Your task to perform on an android device: Clear the cart on ebay. Search for razer blackwidow on ebay, select the first entry, add it to the cart, then select checkout. Image 0: 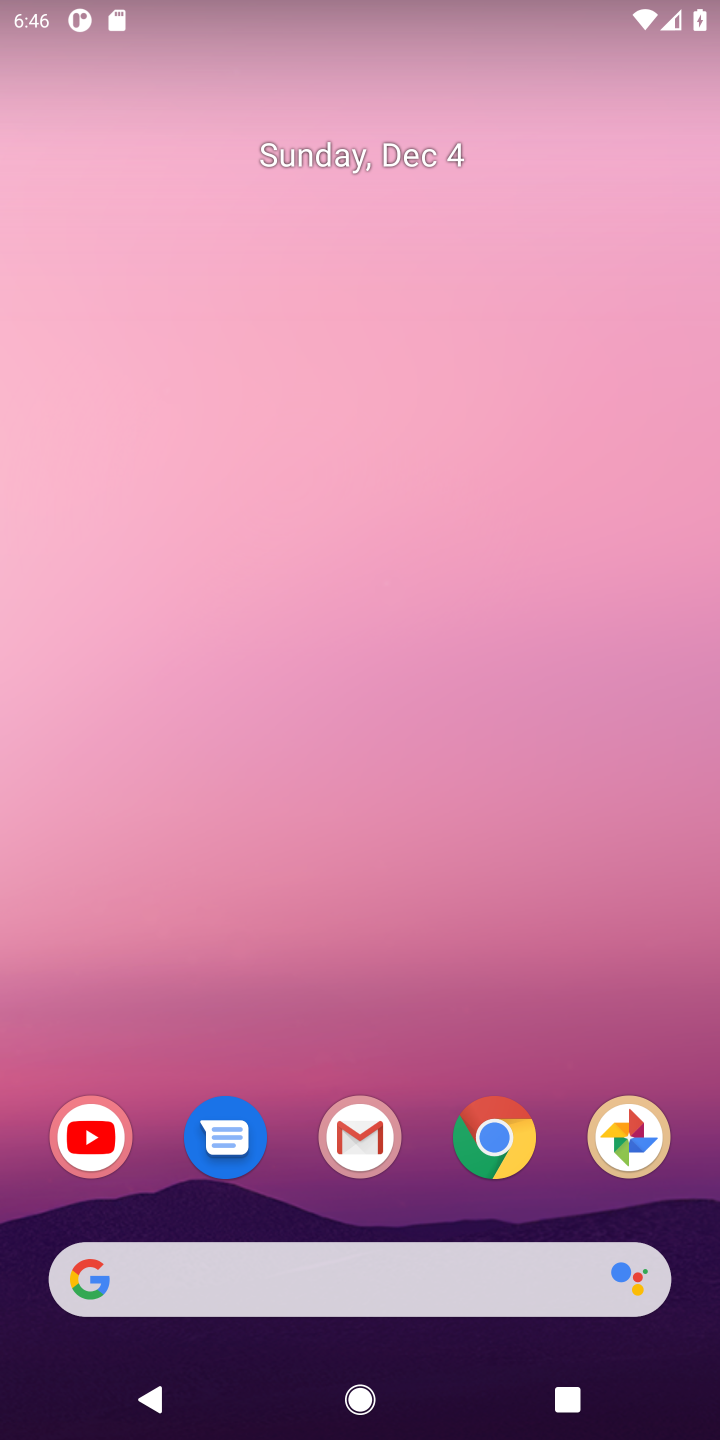
Step 0: click (489, 1140)
Your task to perform on an android device: Clear the cart on ebay. Search for razer blackwidow on ebay, select the first entry, add it to the cart, then select checkout. Image 1: 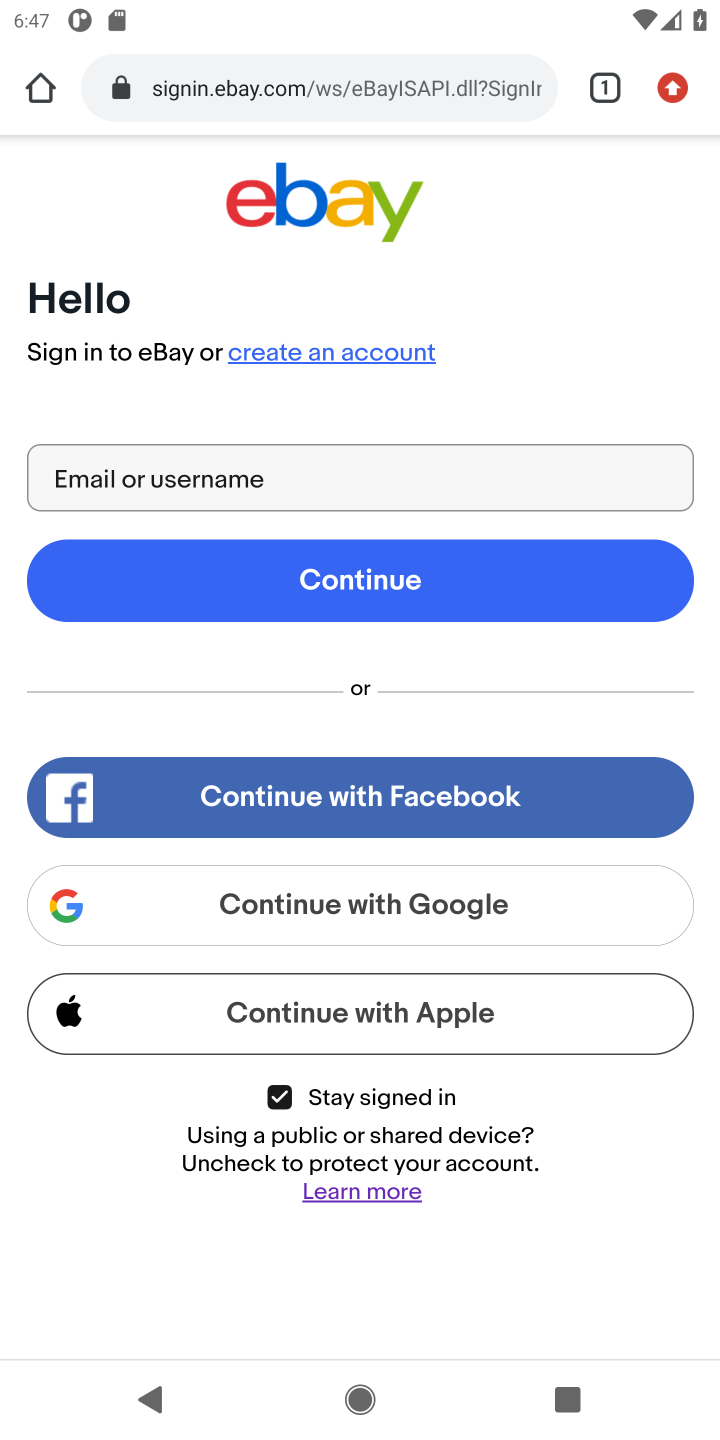
Step 1: press back button
Your task to perform on an android device: Clear the cart on ebay. Search for razer blackwidow on ebay, select the first entry, add it to the cart, then select checkout. Image 2: 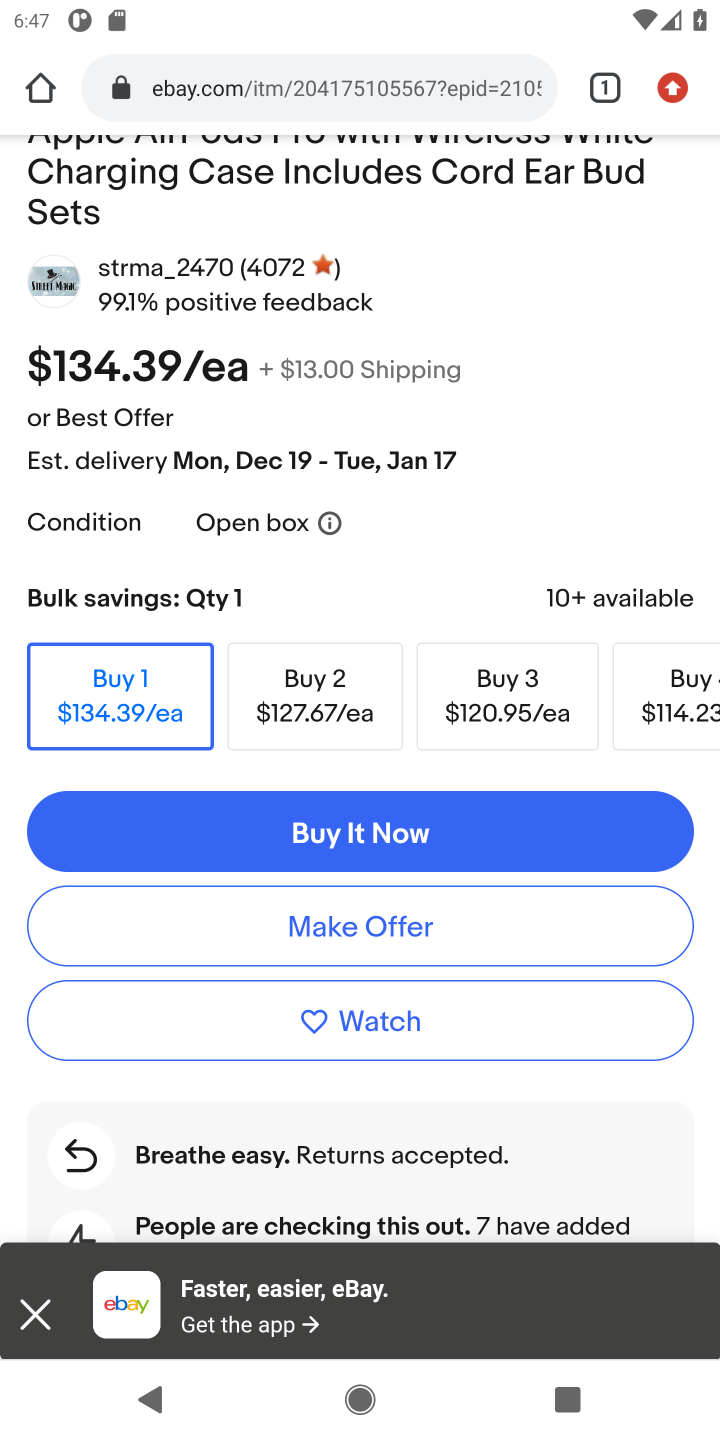
Step 2: drag from (545, 229) to (497, 1020)
Your task to perform on an android device: Clear the cart on ebay. Search for razer blackwidow on ebay, select the first entry, add it to the cart, then select checkout. Image 3: 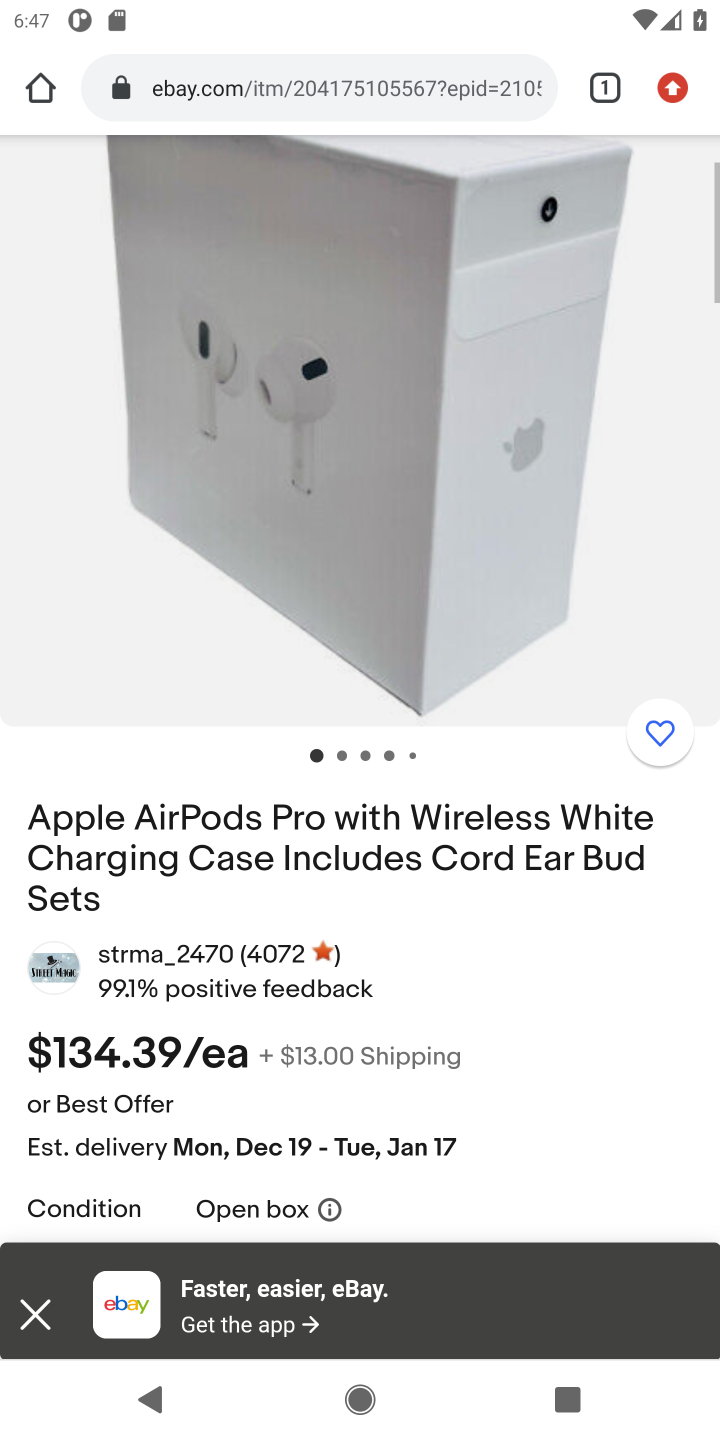
Step 3: drag from (480, 501) to (502, 1147)
Your task to perform on an android device: Clear the cart on ebay. Search for razer blackwidow on ebay, select the first entry, add it to the cart, then select checkout. Image 4: 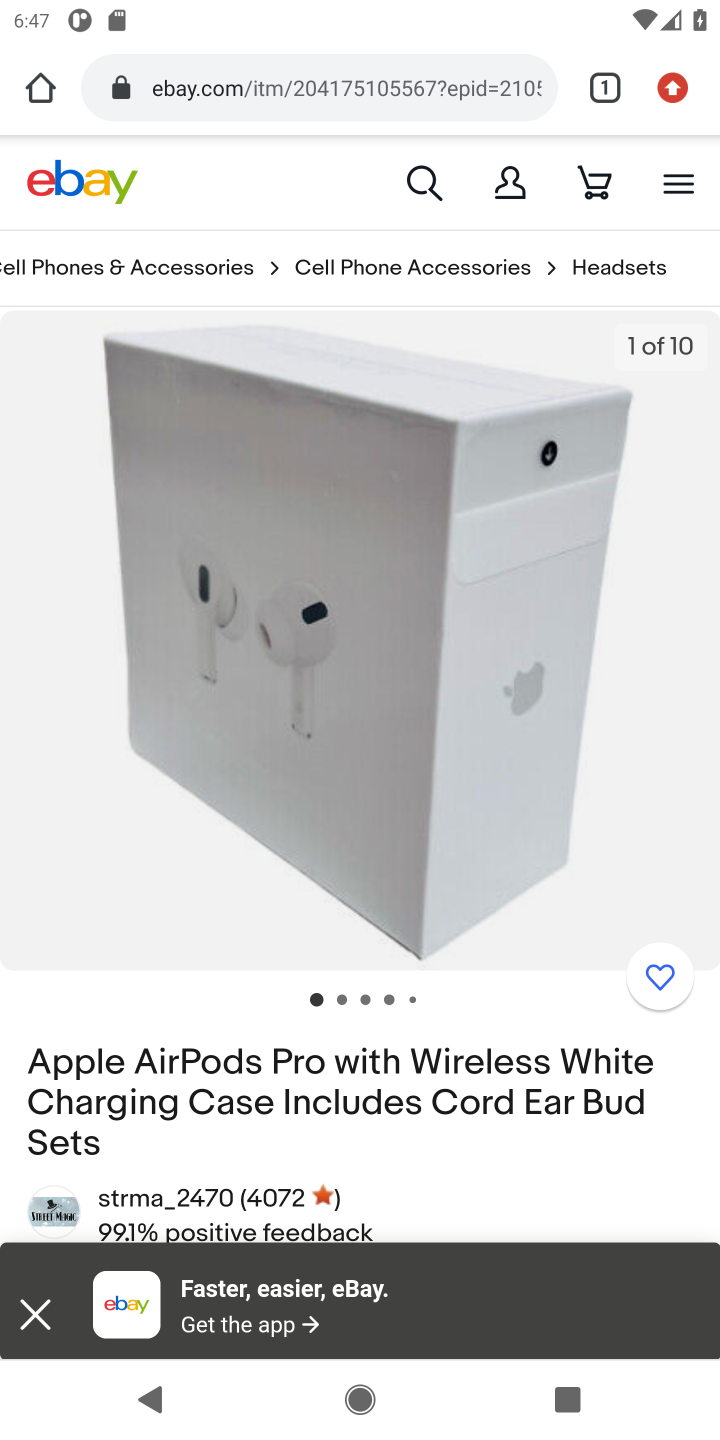
Step 4: click (599, 190)
Your task to perform on an android device: Clear the cart on ebay. Search for razer blackwidow on ebay, select the first entry, add it to the cart, then select checkout. Image 5: 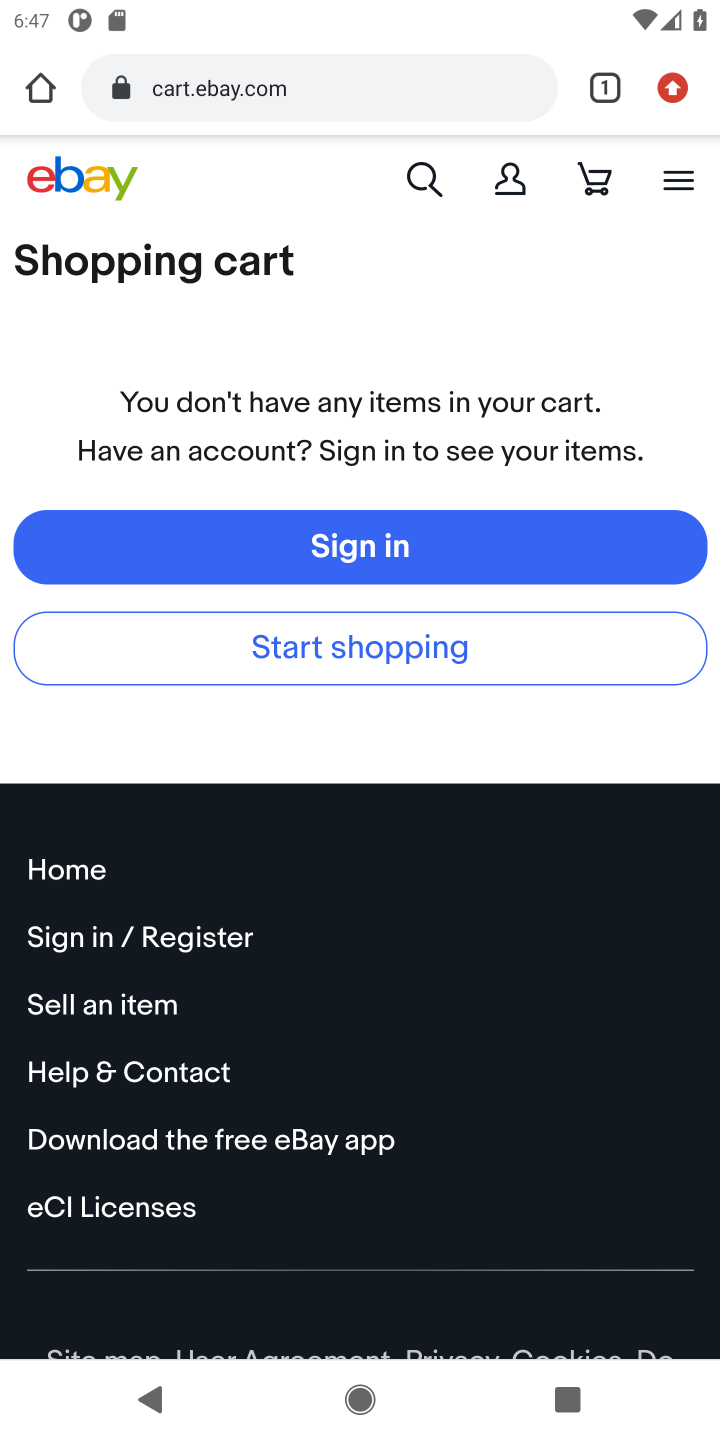
Step 5: click (375, 639)
Your task to perform on an android device: Clear the cart on ebay. Search for razer blackwidow on ebay, select the first entry, add it to the cart, then select checkout. Image 6: 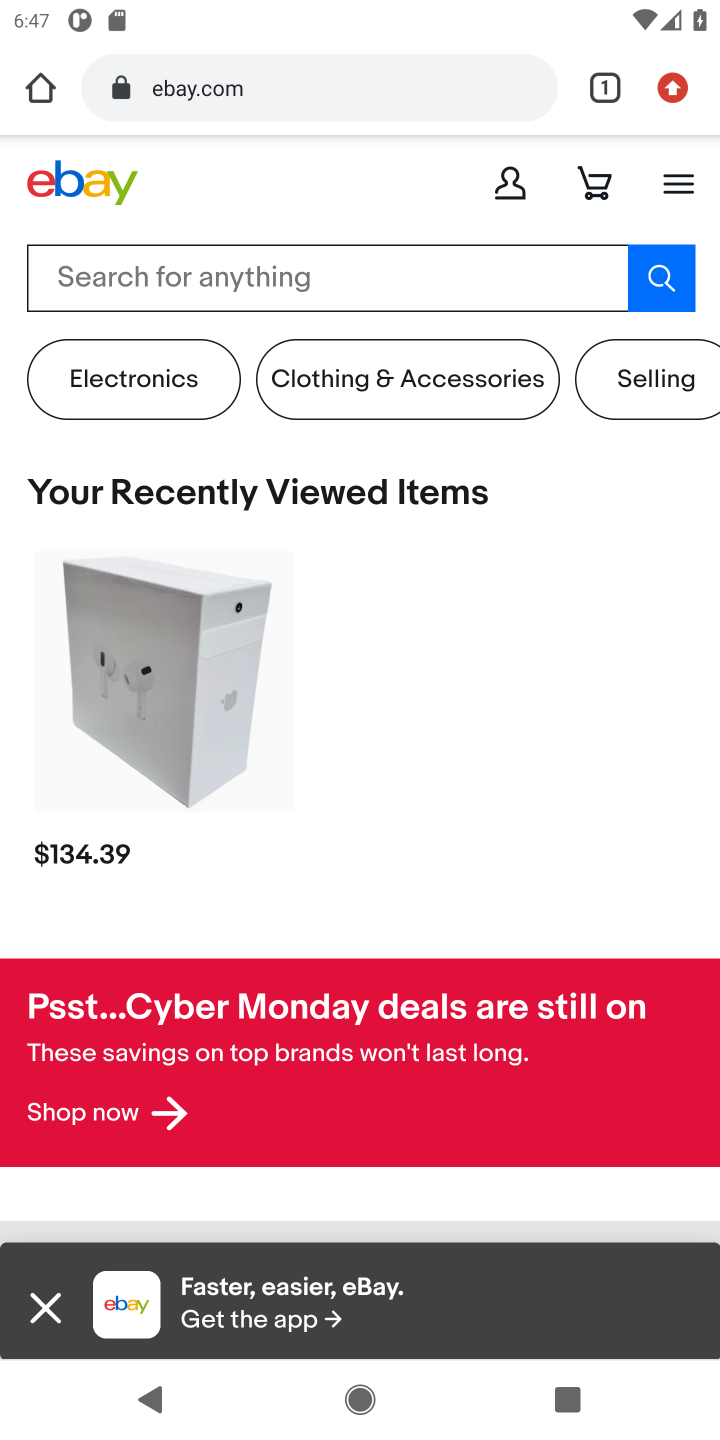
Step 6: click (272, 284)
Your task to perform on an android device: Clear the cart on ebay. Search for razer blackwidow on ebay, select the first entry, add it to the cart, then select checkout. Image 7: 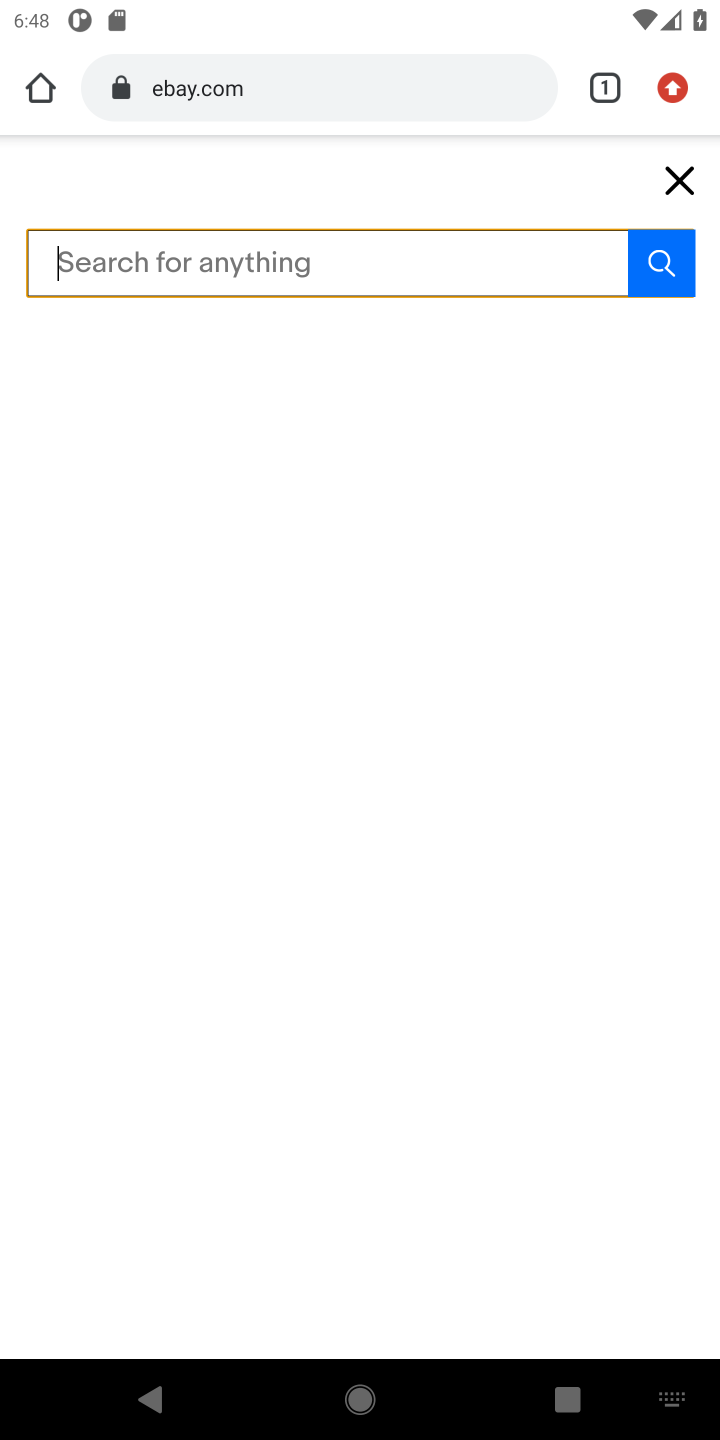
Step 7: type "razer blackwidow"
Your task to perform on an android device: Clear the cart on ebay. Search for razer blackwidow on ebay, select the first entry, add it to the cart, then select checkout. Image 8: 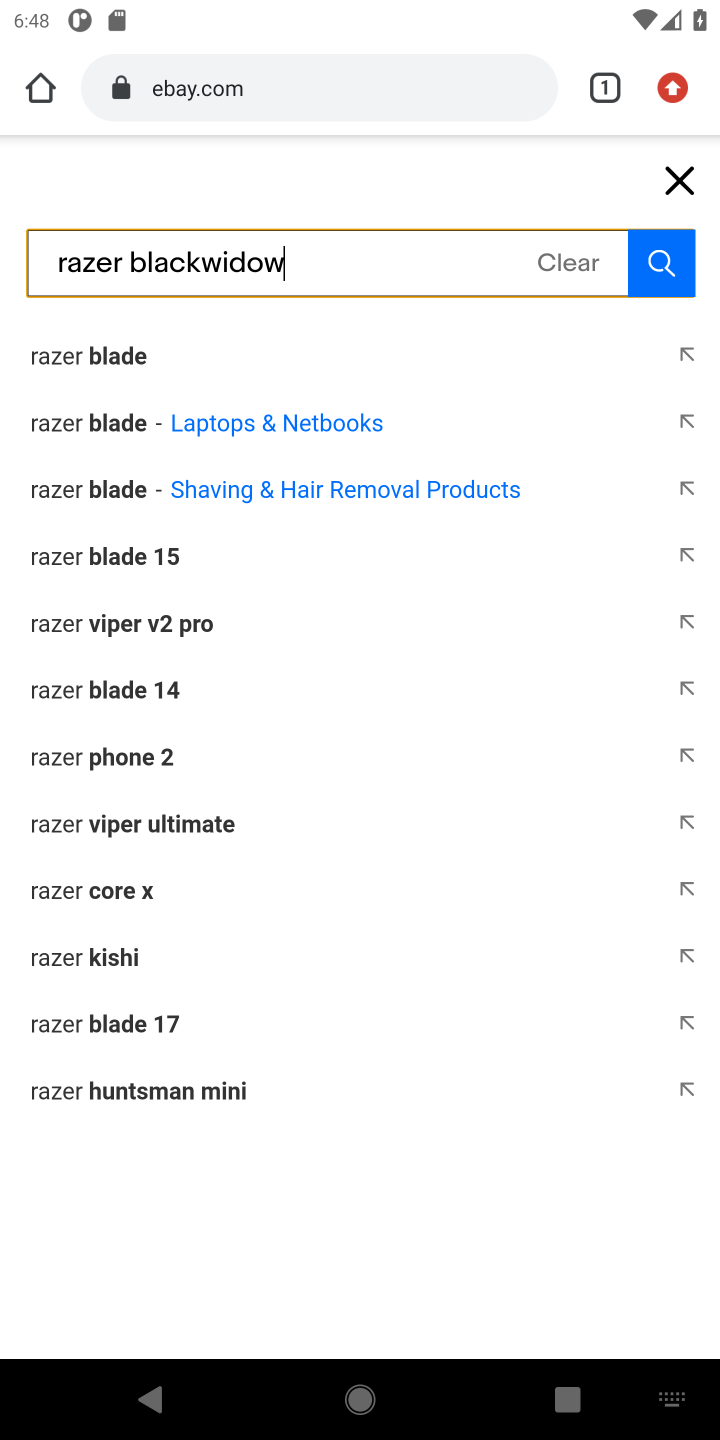
Step 8: click (73, 348)
Your task to perform on an android device: Clear the cart on ebay. Search for razer blackwidow on ebay, select the first entry, add it to the cart, then select checkout. Image 9: 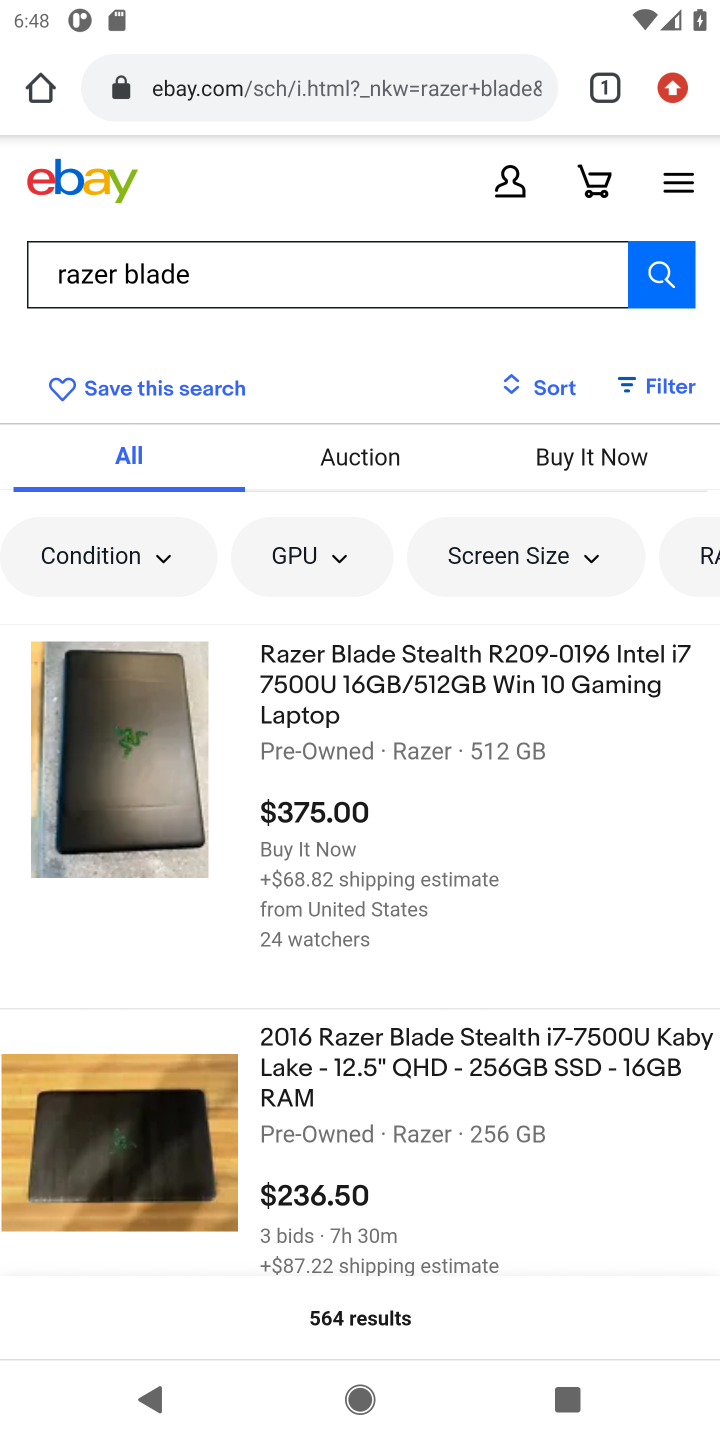
Step 9: click (378, 691)
Your task to perform on an android device: Clear the cart on ebay. Search for razer blackwidow on ebay, select the first entry, add it to the cart, then select checkout. Image 10: 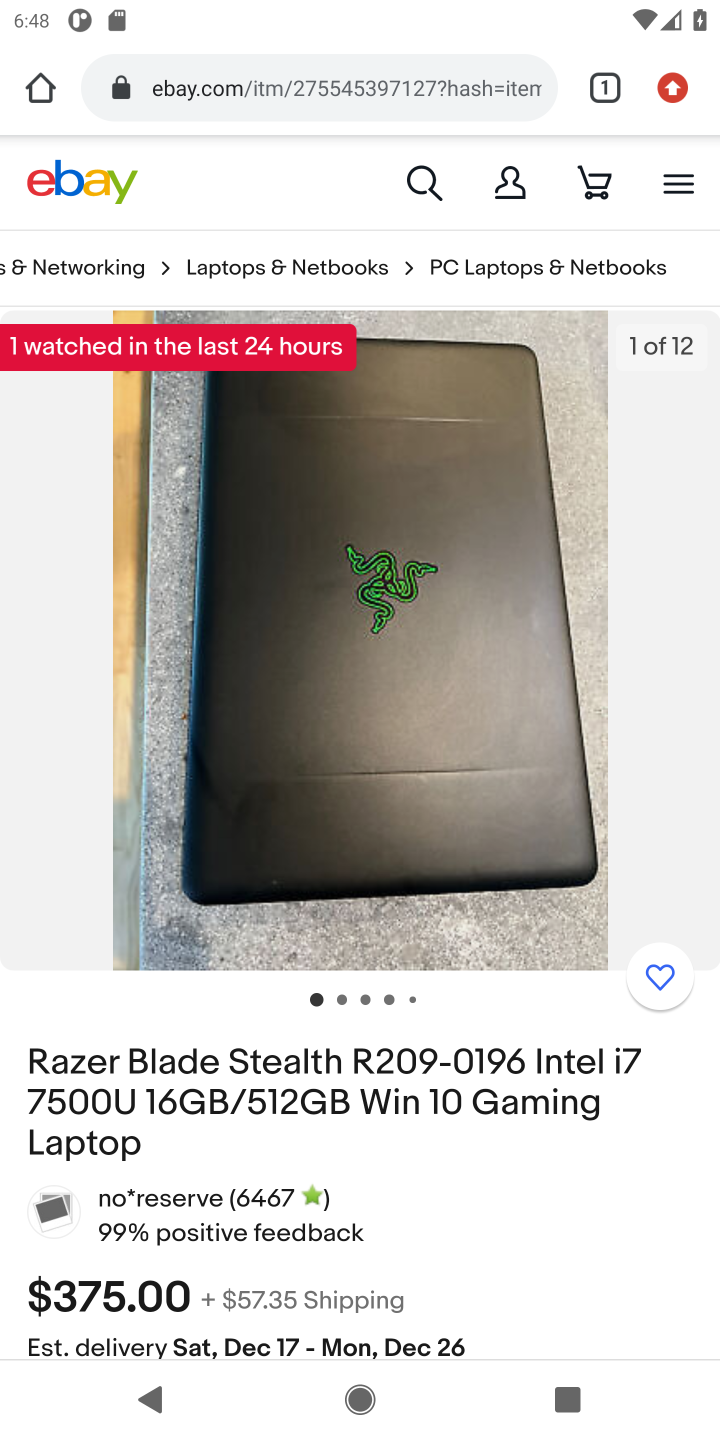
Step 10: drag from (448, 1124) to (460, 328)
Your task to perform on an android device: Clear the cart on ebay. Search for razer blackwidow on ebay, select the first entry, add it to the cart, then select checkout. Image 11: 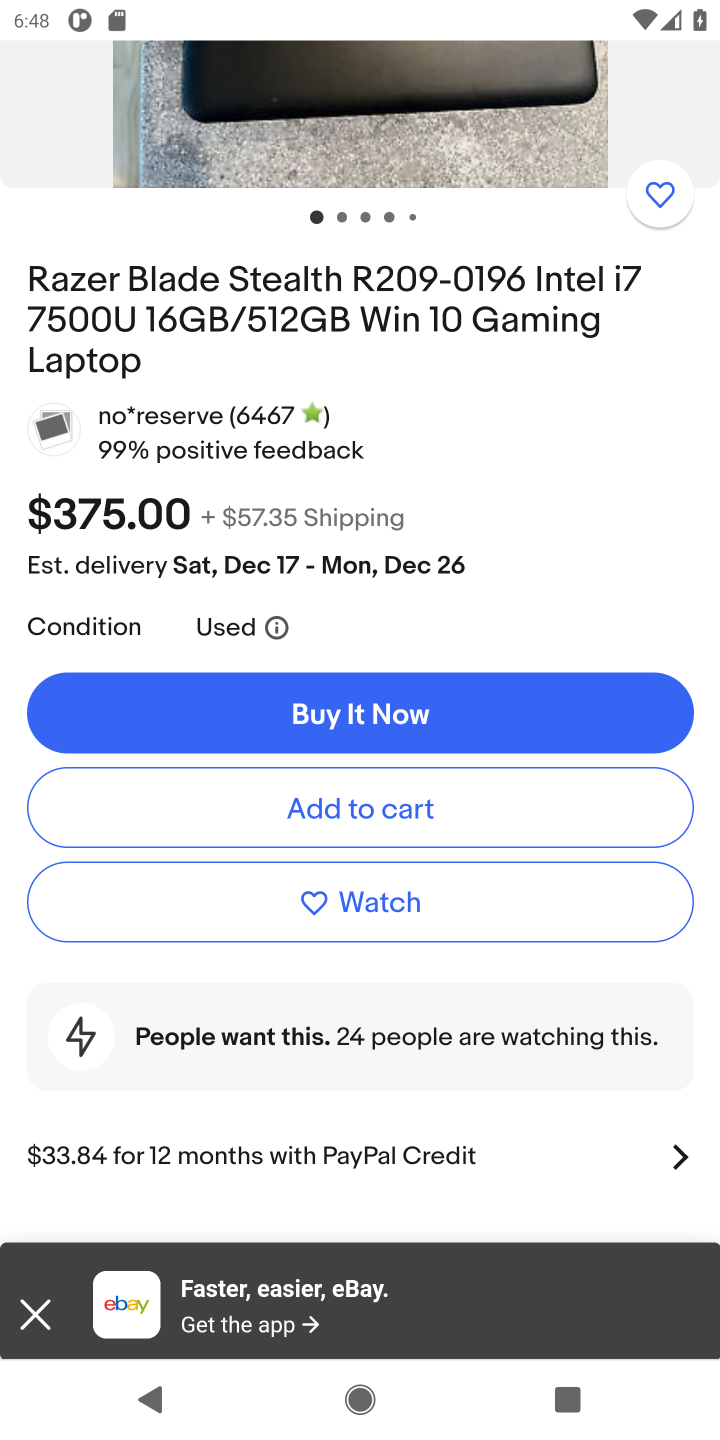
Step 11: click (343, 806)
Your task to perform on an android device: Clear the cart on ebay. Search for razer blackwidow on ebay, select the first entry, add it to the cart, then select checkout. Image 12: 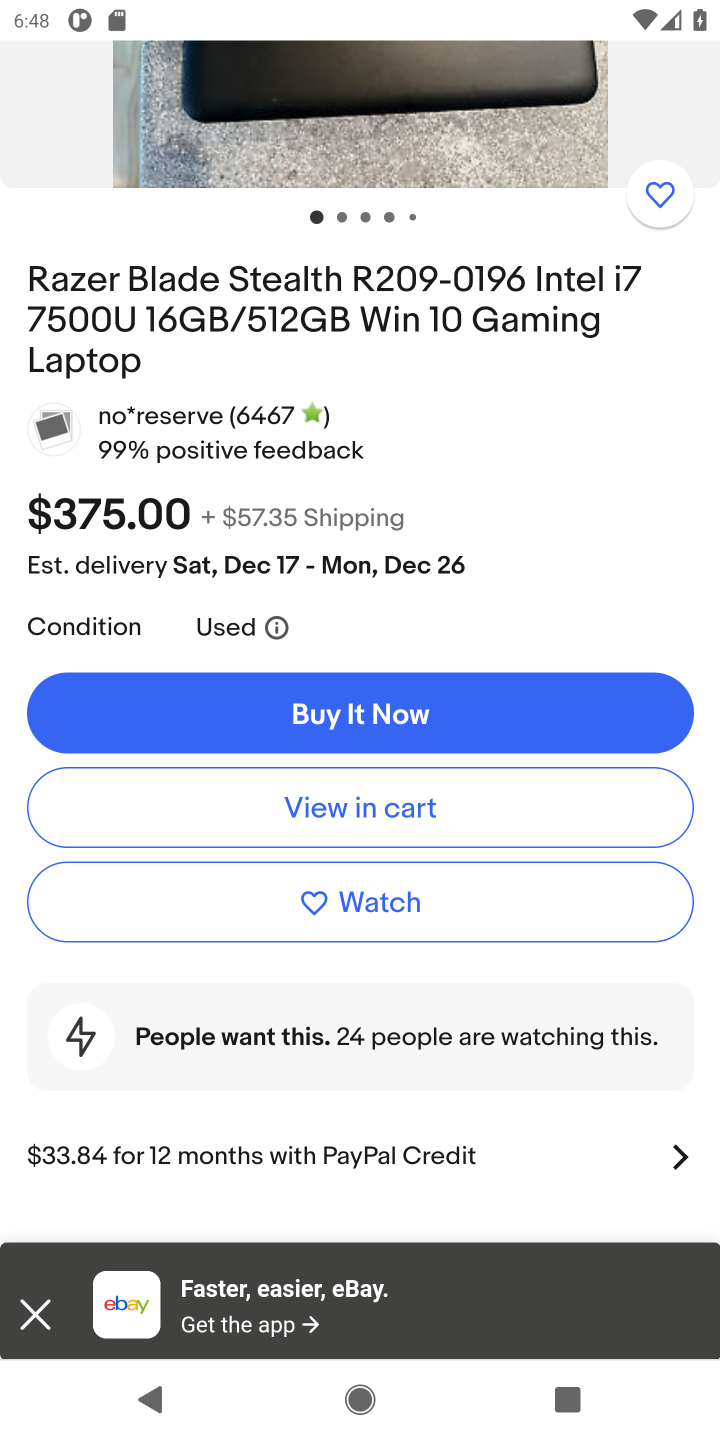
Step 12: click (356, 806)
Your task to perform on an android device: Clear the cart on ebay. Search for razer blackwidow on ebay, select the first entry, add it to the cart, then select checkout. Image 13: 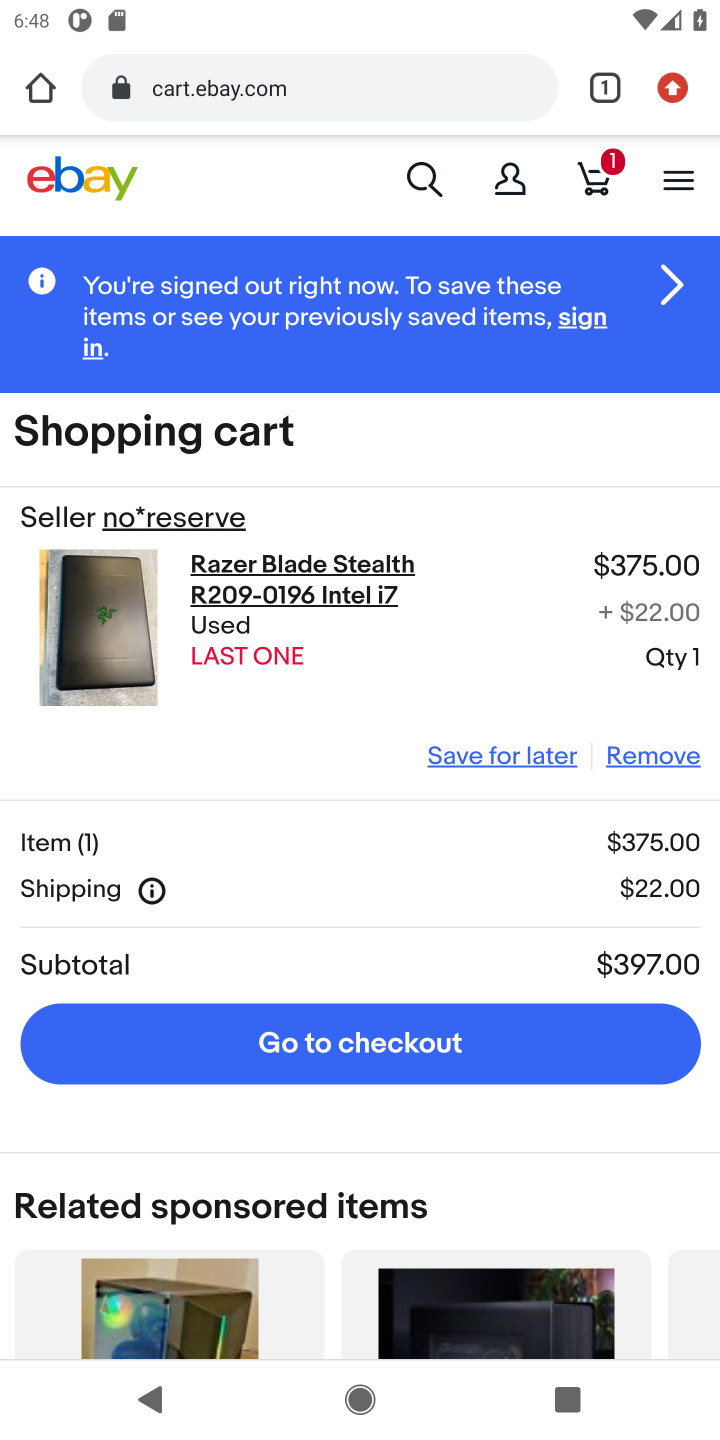
Step 13: click (348, 1034)
Your task to perform on an android device: Clear the cart on ebay. Search for razer blackwidow on ebay, select the first entry, add it to the cart, then select checkout. Image 14: 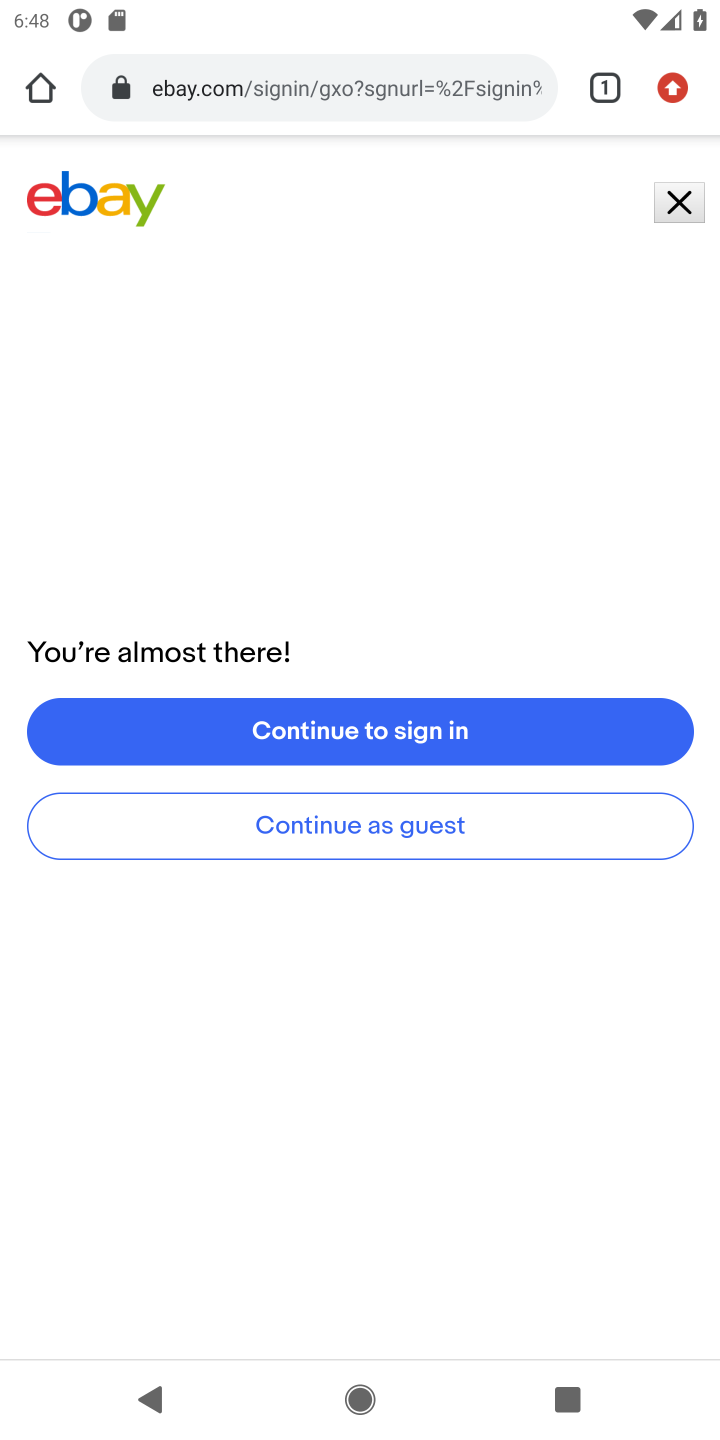
Step 14: task complete